Your task to perform on an android device: turn off picture-in-picture Image 0: 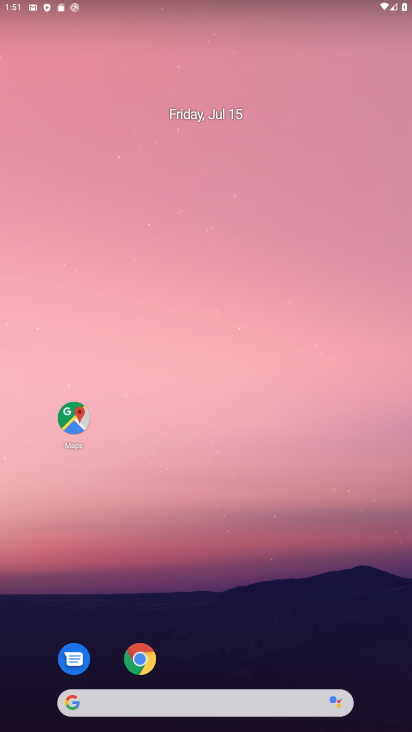
Step 0: drag from (271, 566) to (248, 351)
Your task to perform on an android device: turn off picture-in-picture Image 1: 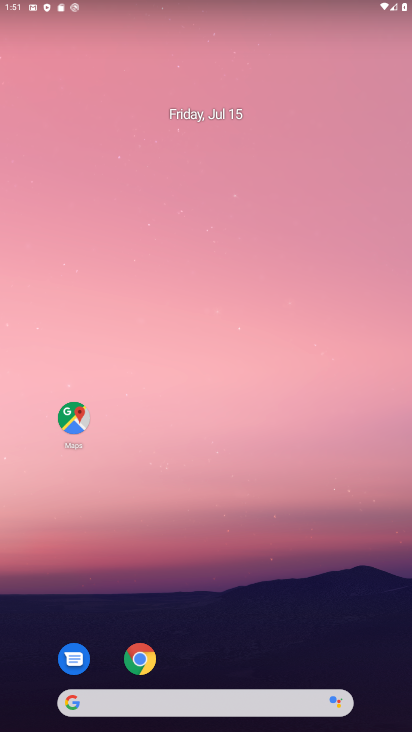
Step 1: click (144, 660)
Your task to perform on an android device: turn off picture-in-picture Image 2: 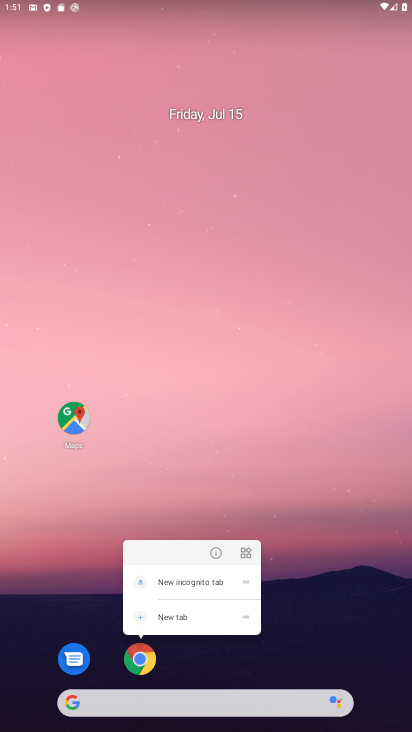
Step 2: click (217, 561)
Your task to perform on an android device: turn off picture-in-picture Image 3: 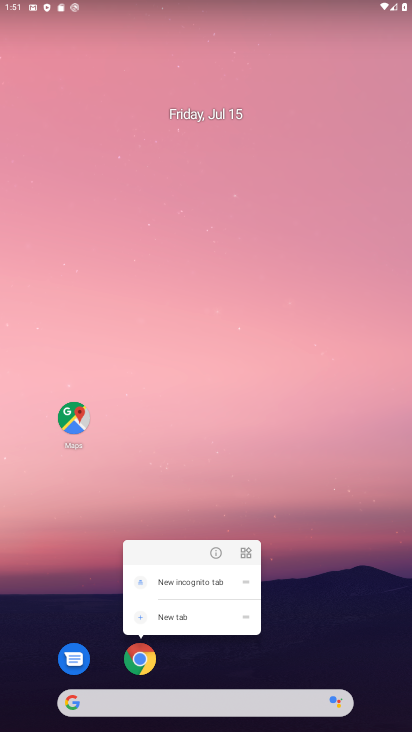
Step 3: click (214, 555)
Your task to perform on an android device: turn off picture-in-picture Image 4: 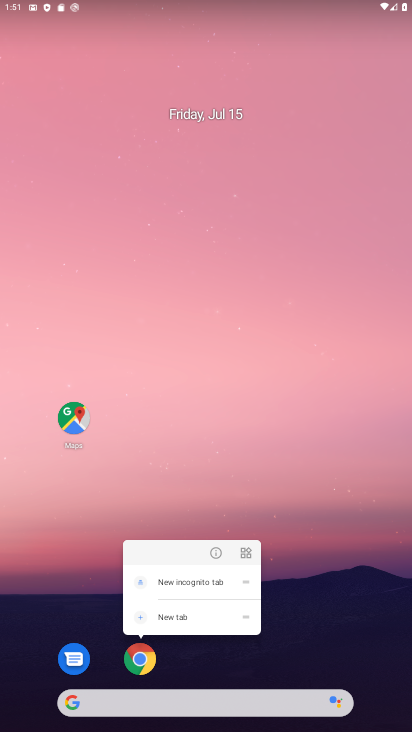
Step 4: click (214, 552)
Your task to perform on an android device: turn off picture-in-picture Image 5: 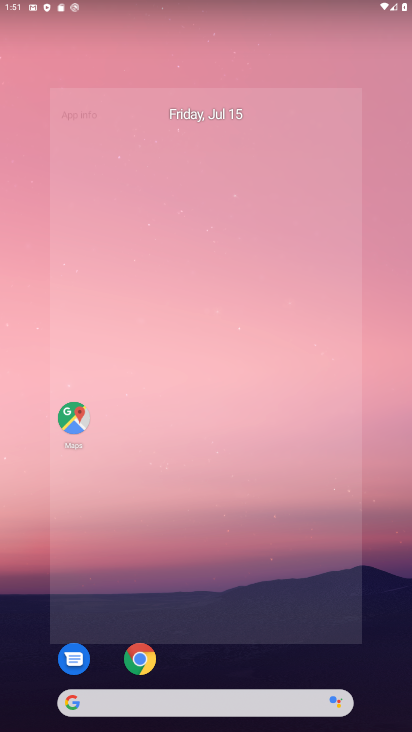
Step 5: click (218, 554)
Your task to perform on an android device: turn off picture-in-picture Image 6: 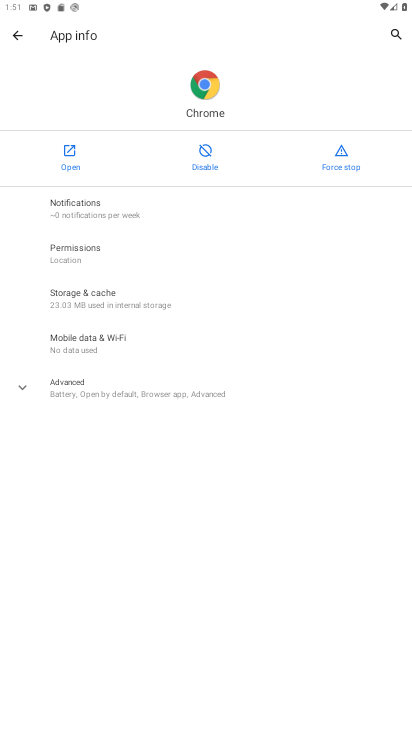
Step 6: click (79, 390)
Your task to perform on an android device: turn off picture-in-picture Image 7: 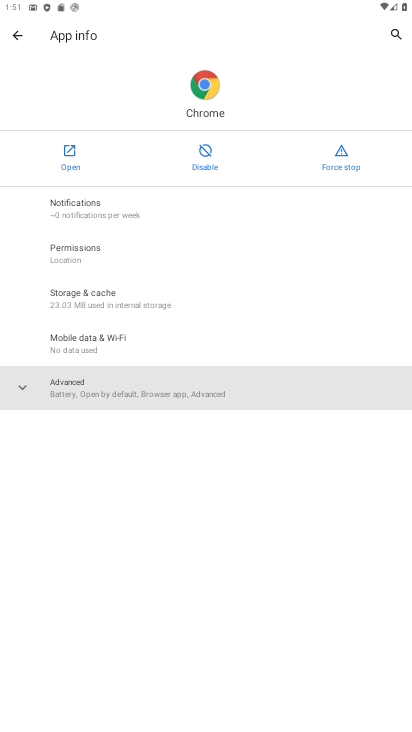
Step 7: click (77, 391)
Your task to perform on an android device: turn off picture-in-picture Image 8: 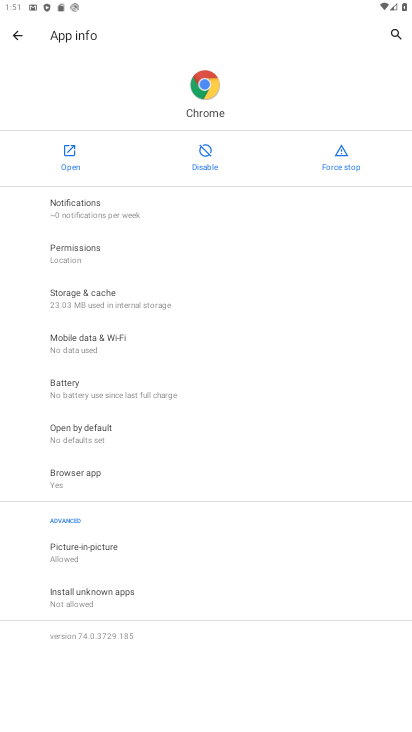
Step 8: click (77, 391)
Your task to perform on an android device: turn off picture-in-picture Image 9: 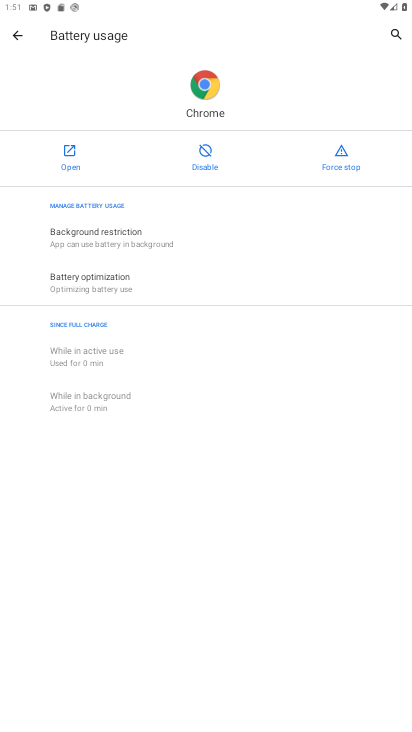
Step 9: click (14, 39)
Your task to perform on an android device: turn off picture-in-picture Image 10: 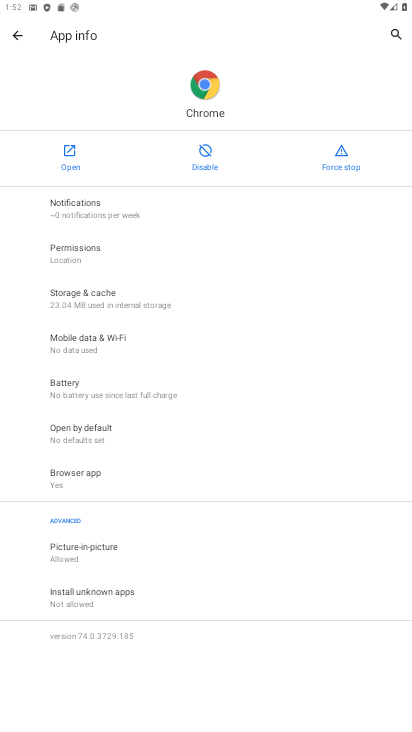
Step 10: click (69, 548)
Your task to perform on an android device: turn off picture-in-picture Image 11: 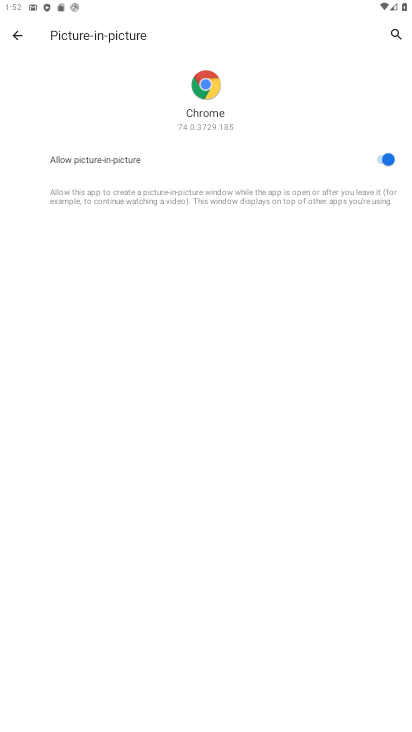
Step 11: click (377, 158)
Your task to perform on an android device: turn off picture-in-picture Image 12: 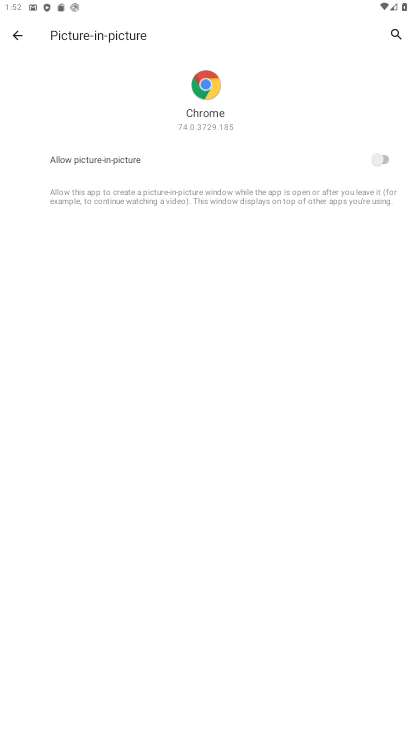
Step 12: task complete